Your task to perform on an android device: Add "logitech g933" to the cart on ebay Image 0: 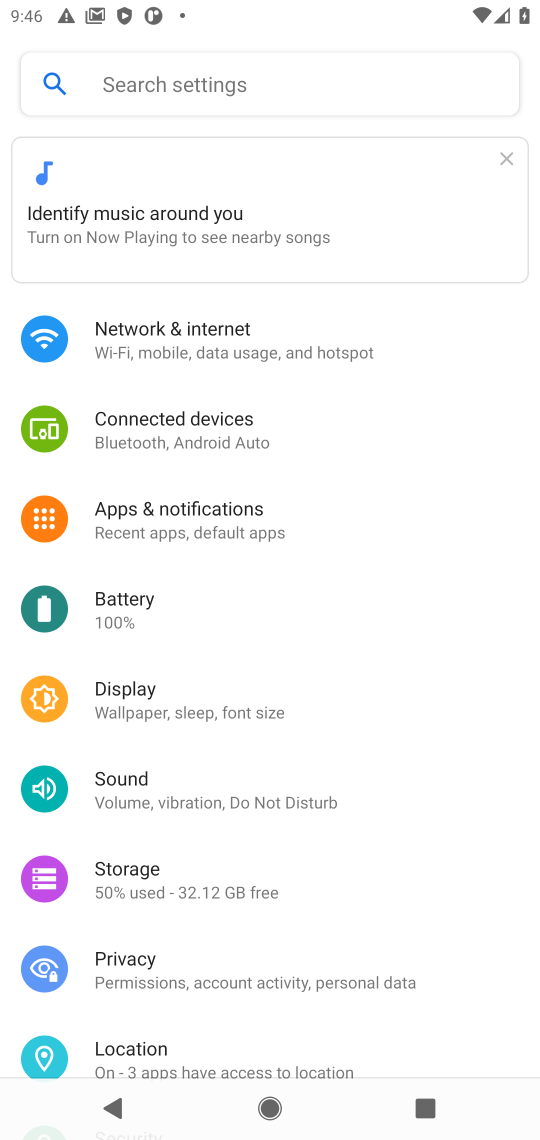
Step 0: press home button
Your task to perform on an android device: Add "logitech g933" to the cart on ebay Image 1: 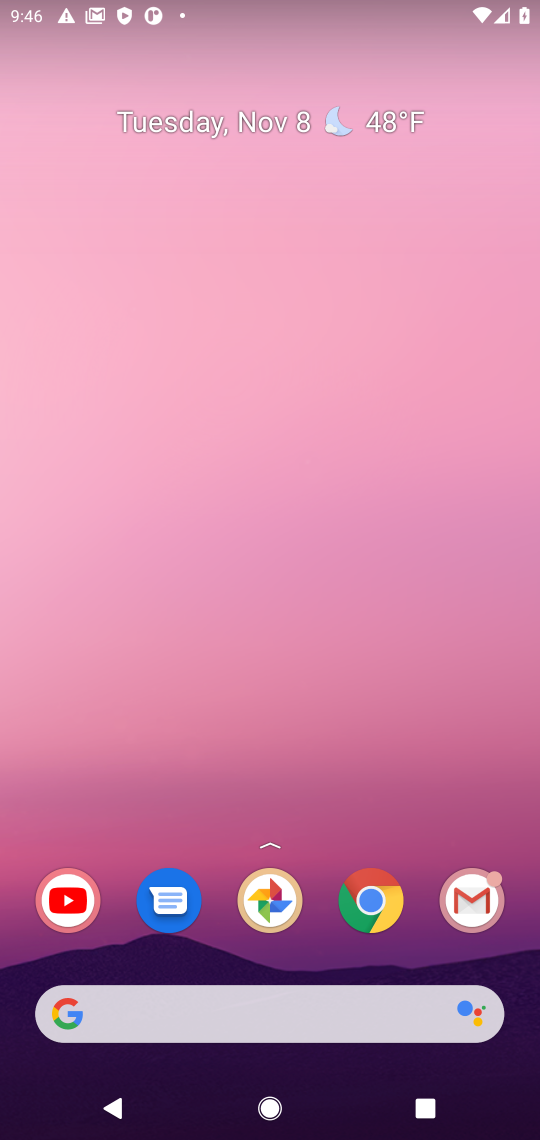
Step 1: click (374, 908)
Your task to perform on an android device: Add "logitech g933" to the cart on ebay Image 2: 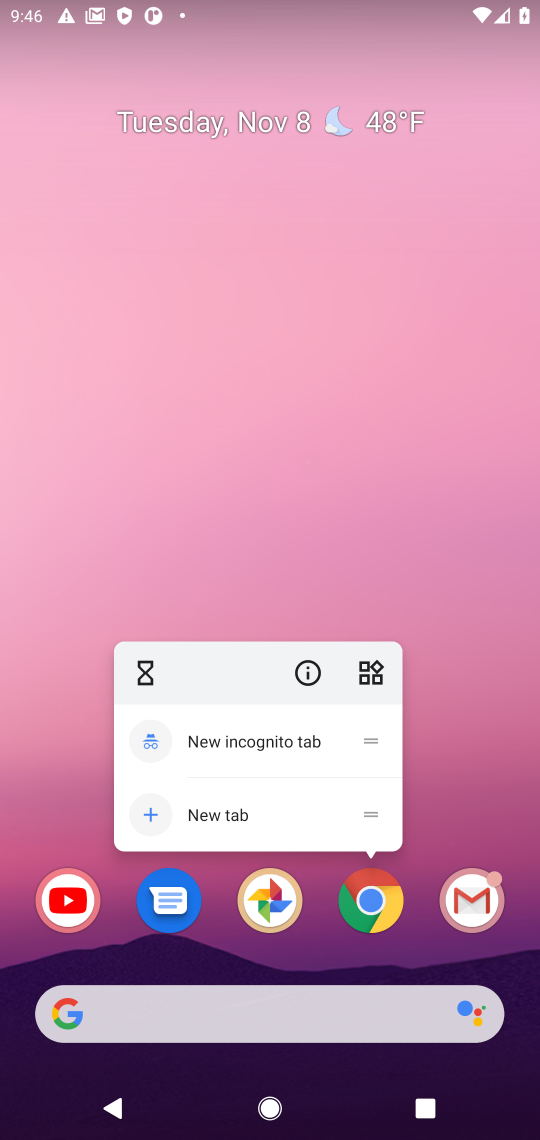
Step 2: click (368, 908)
Your task to perform on an android device: Add "logitech g933" to the cart on ebay Image 3: 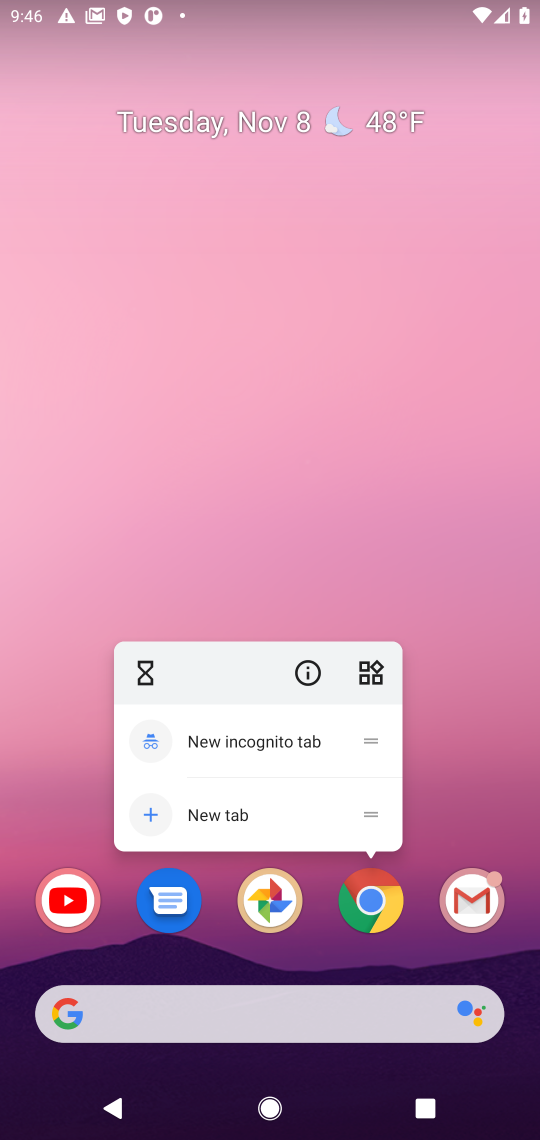
Step 3: click (368, 908)
Your task to perform on an android device: Add "logitech g933" to the cart on ebay Image 4: 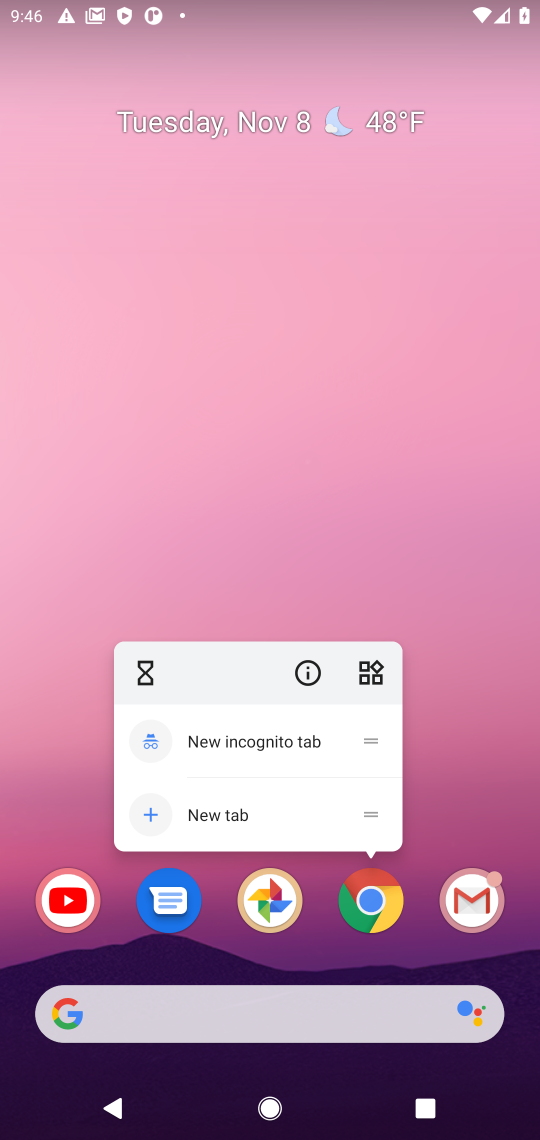
Step 4: click (365, 908)
Your task to perform on an android device: Add "logitech g933" to the cart on ebay Image 5: 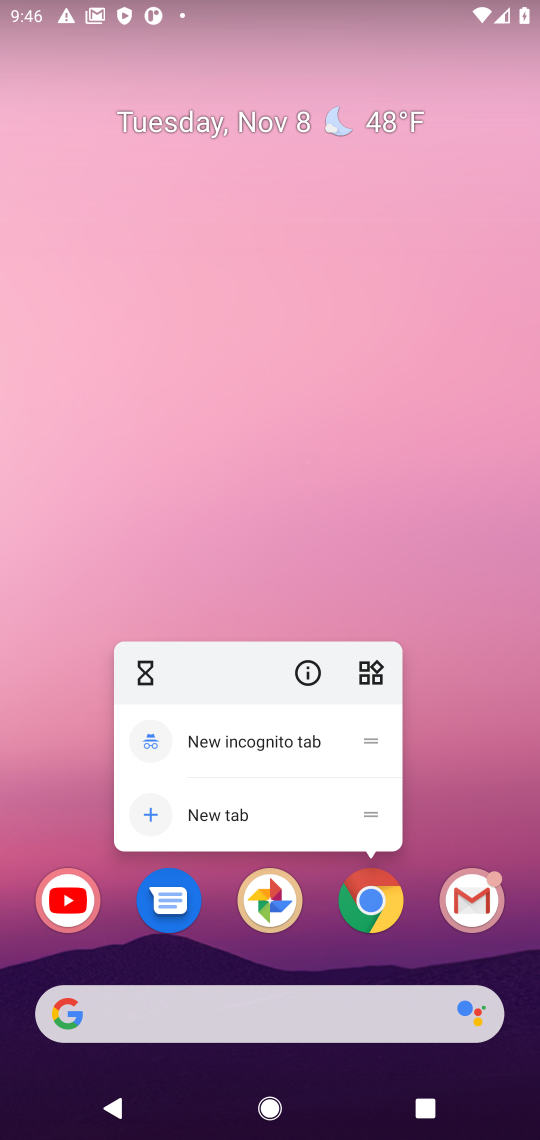
Step 5: press home button
Your task to perform on an android device: Add "logitech g933" to the cart on ebay Image 6: 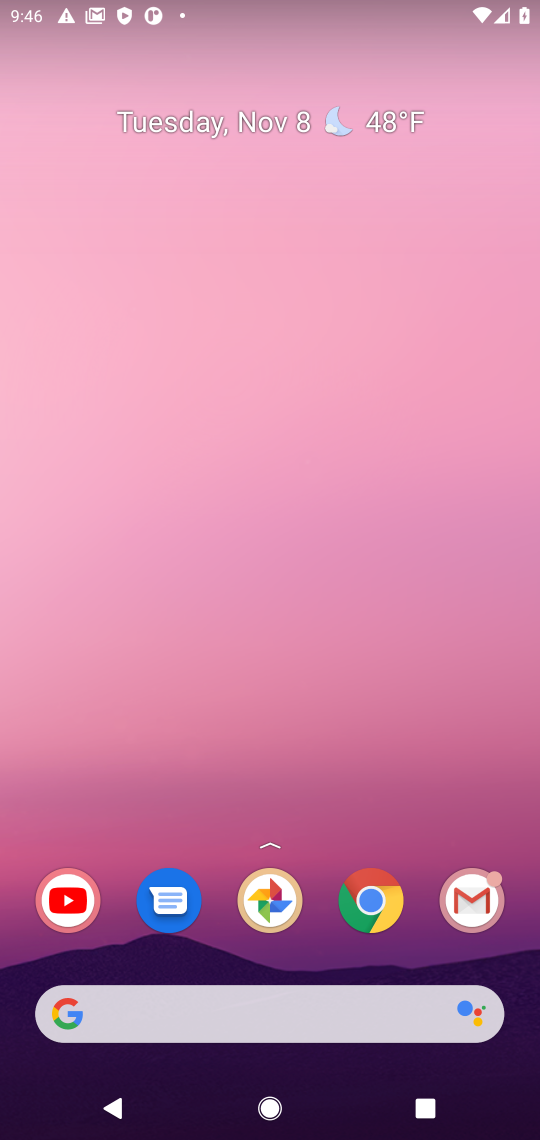
Step 6: click (375, 906)
Your task to perform on an android device: Add "logitech g933" to the cart on ebay Image 7: 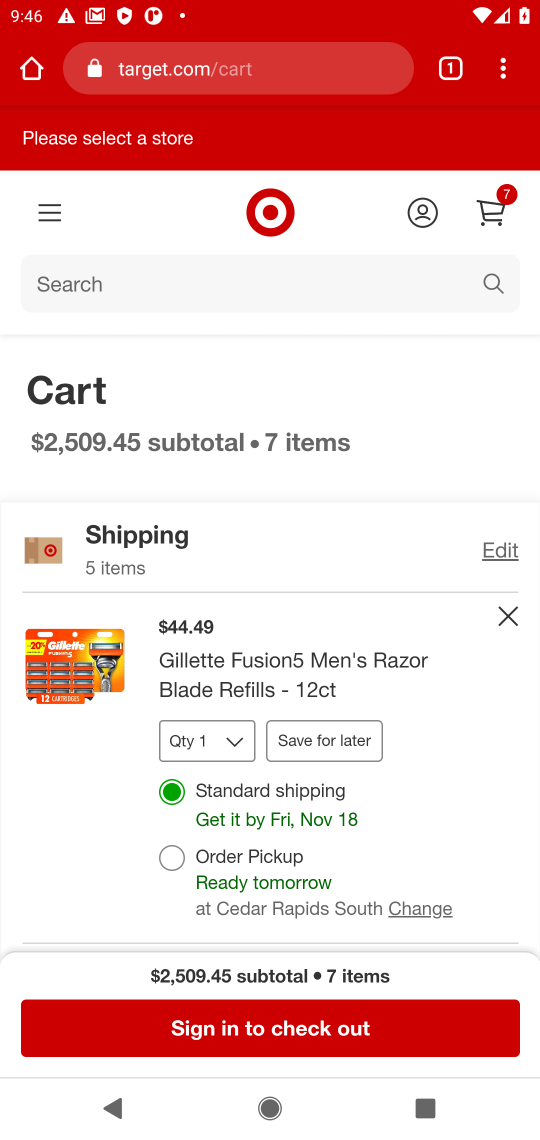
Step 7: click (181, 68)
Your task to perform on an android device: Add "logitech g933" to the cart on ebay Image 8: 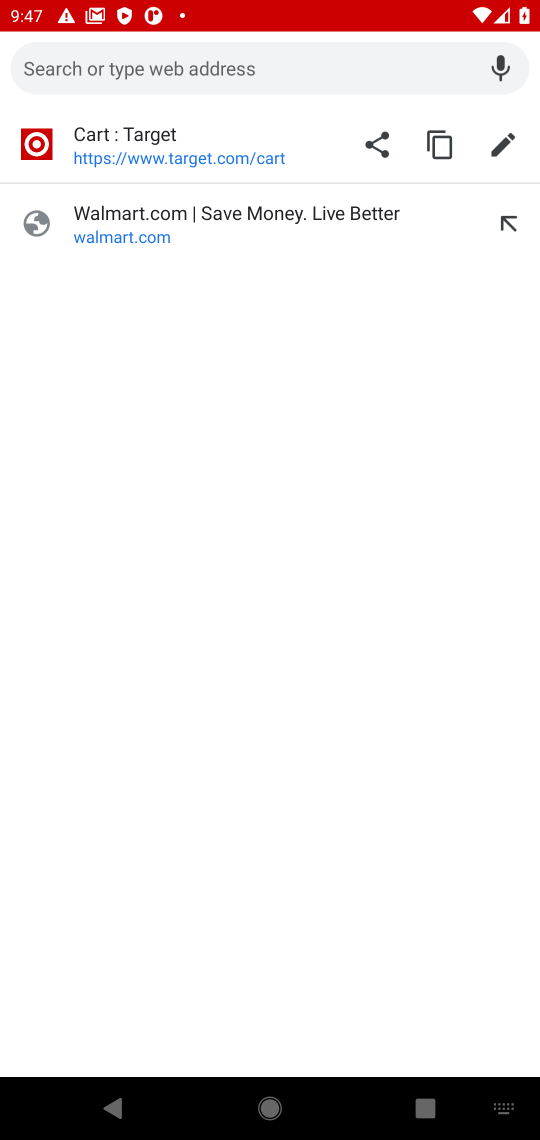
Step 8: type "ebay"
Your task to perform on an android device: Add "logitech g933" to the cart on ebay Image 9: 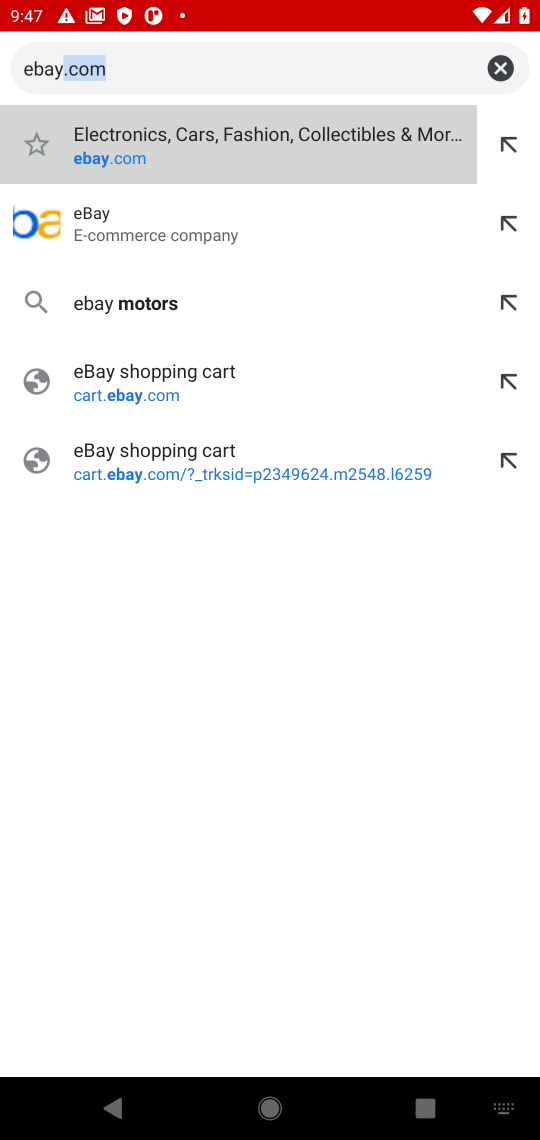
Step 9: type ""
Your task to perform on an android device: Add "logitech g933" to the cart on ebay Image 10: 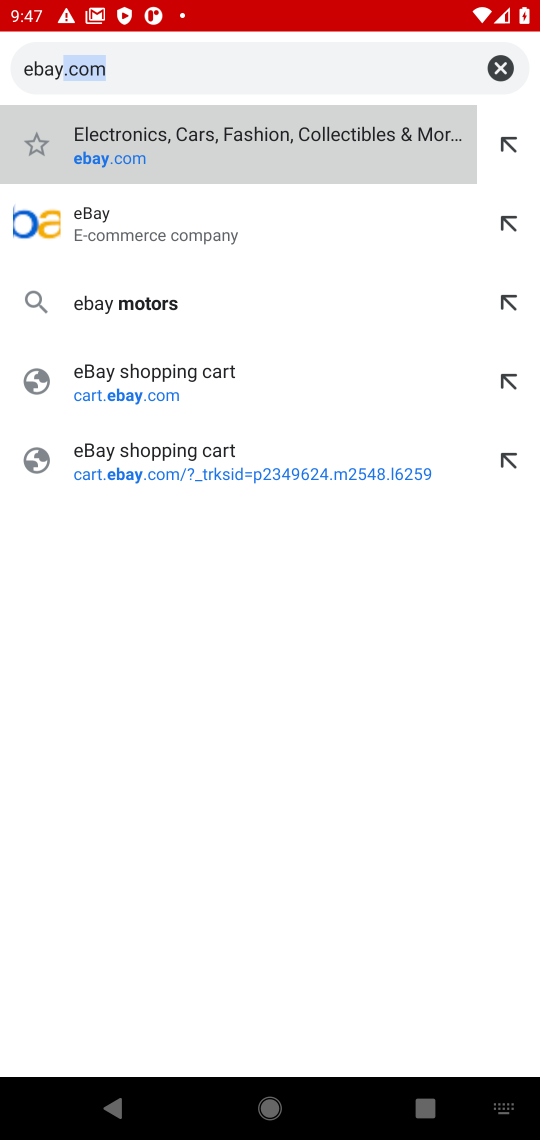
Step 10: click (115, 229)
Your task to perform on an android device: Add "logitech g933" to the cart on ebay Image 11: 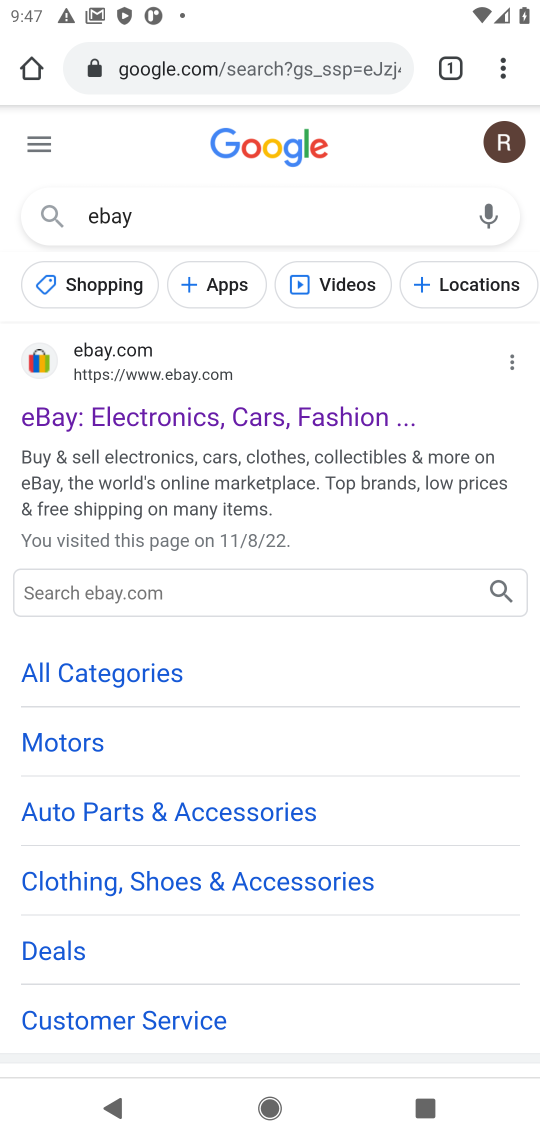
Step 11: click (144, 419)
Your task to perform on an android device: Add "logitech g933" to the cart on ebay Image 12: 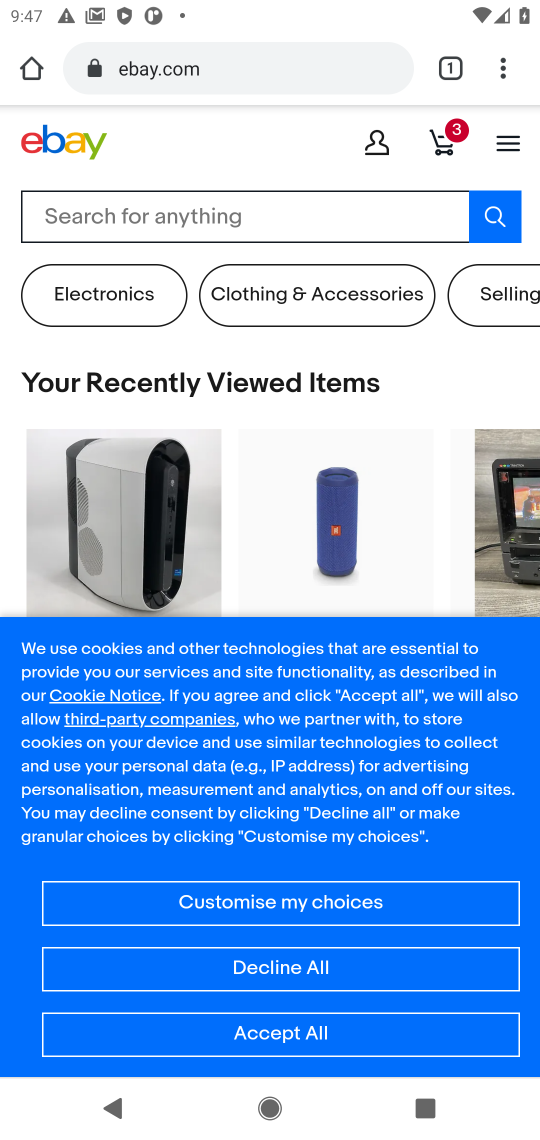
Step 12: click (278, 212)
Your task to perform on an android device: Add "logitech g933" to the cart on ebay Image 13: 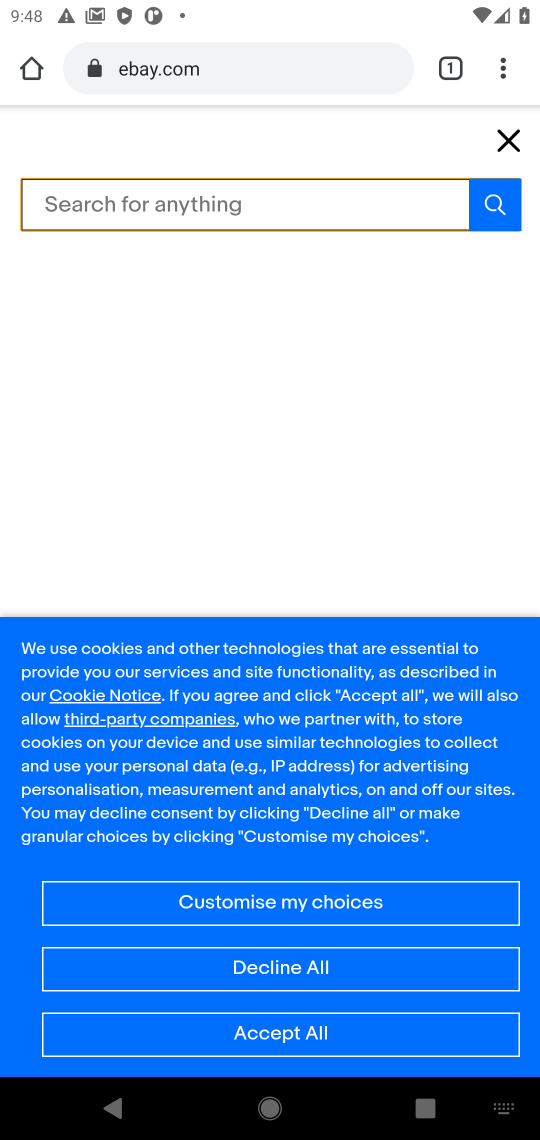
Step 13: type "logitech g933"
Your task to perform on an android device: Add "logitech g933" to the cart on ebay Image 14: 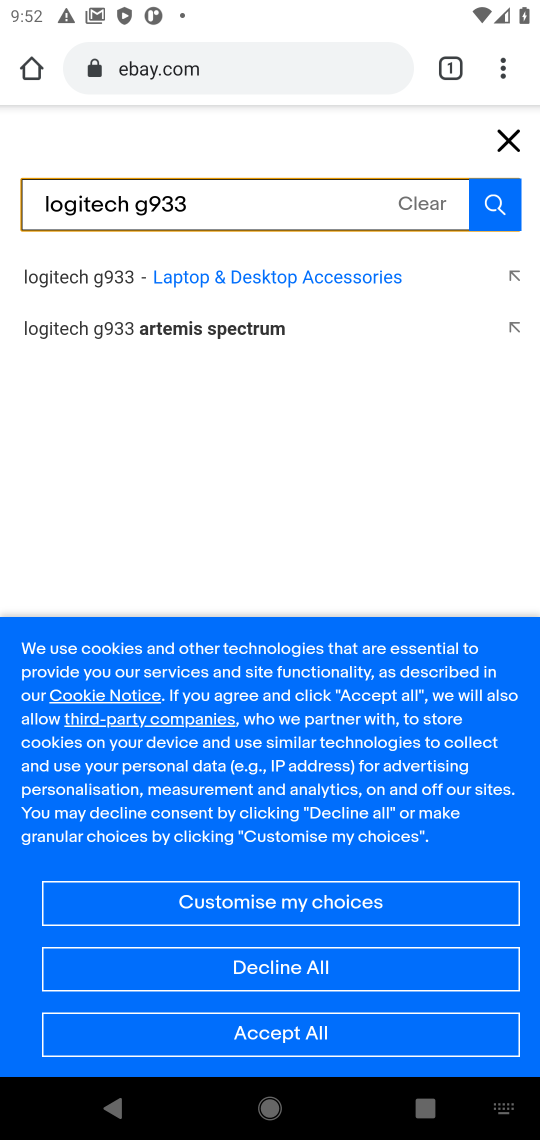
Step 14: click (125, 282)
Your task to perform on an android device: Add "logitech g933" to the cart on ebay Image 15: 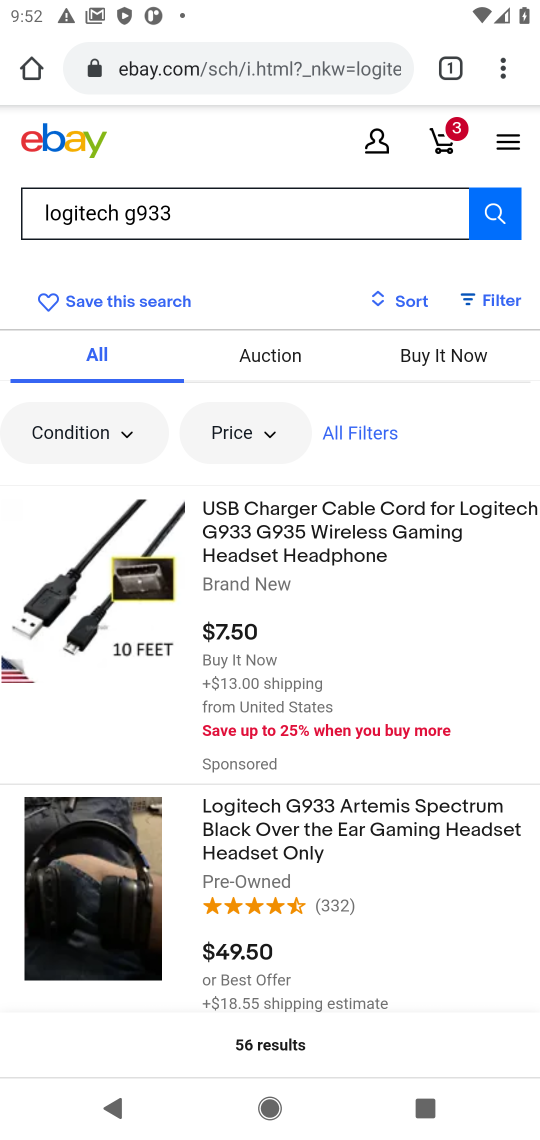
Step 15: click (250, 822)
Your task to perform on an android device: Add "logitech g933" to the cart on ebay Image 16: 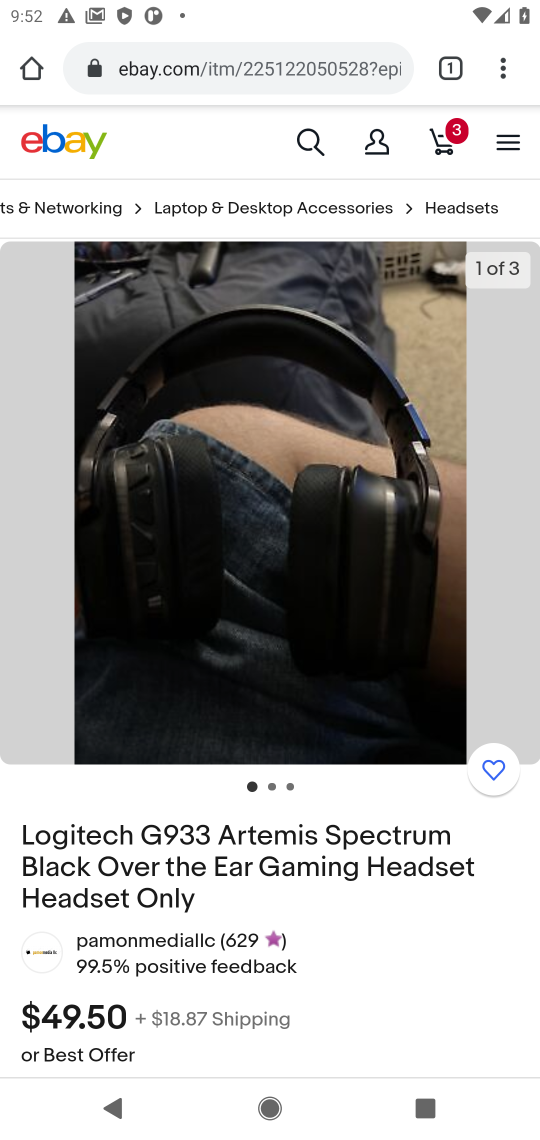
Step 16: drag from (154, 748) to (191, 393)
Your task to perform on an android device: Add "logitech g933" to the cart on ebay Image 17: 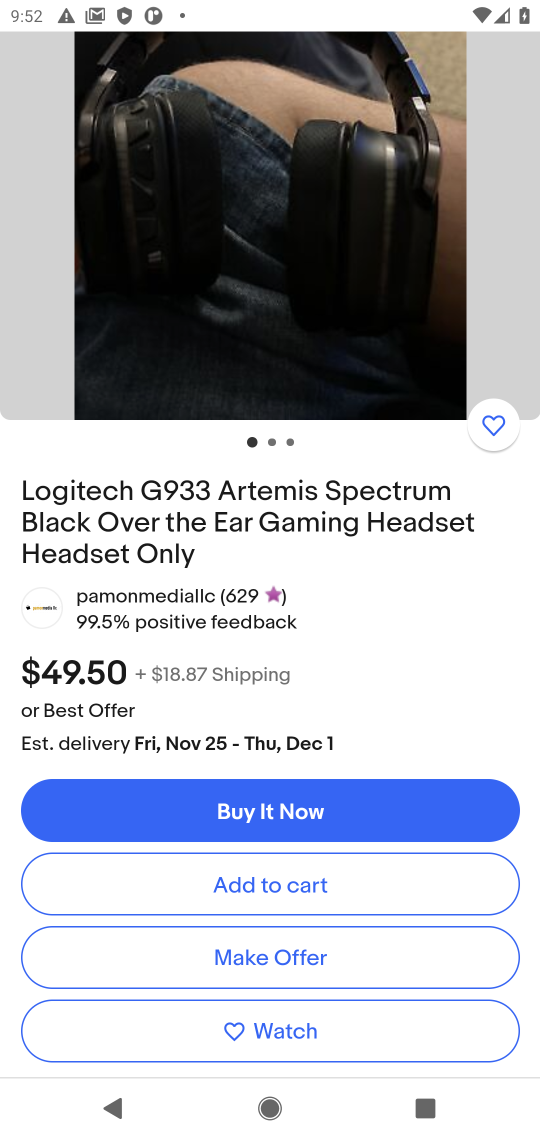
Step 17: click (262, 890)
Your task to perform on an android device: Add "logitech g933" to the cart on ebay Image 18: 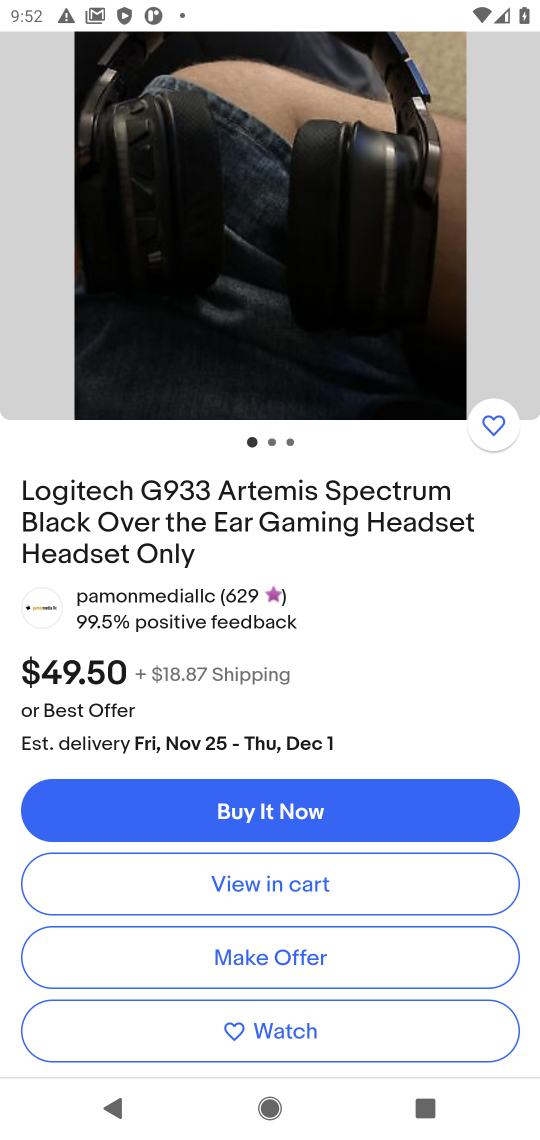
Step 18: click (262, 890)
Your task to perform on an android device: Add "logitech g933" to the cart on ebay Image 19: 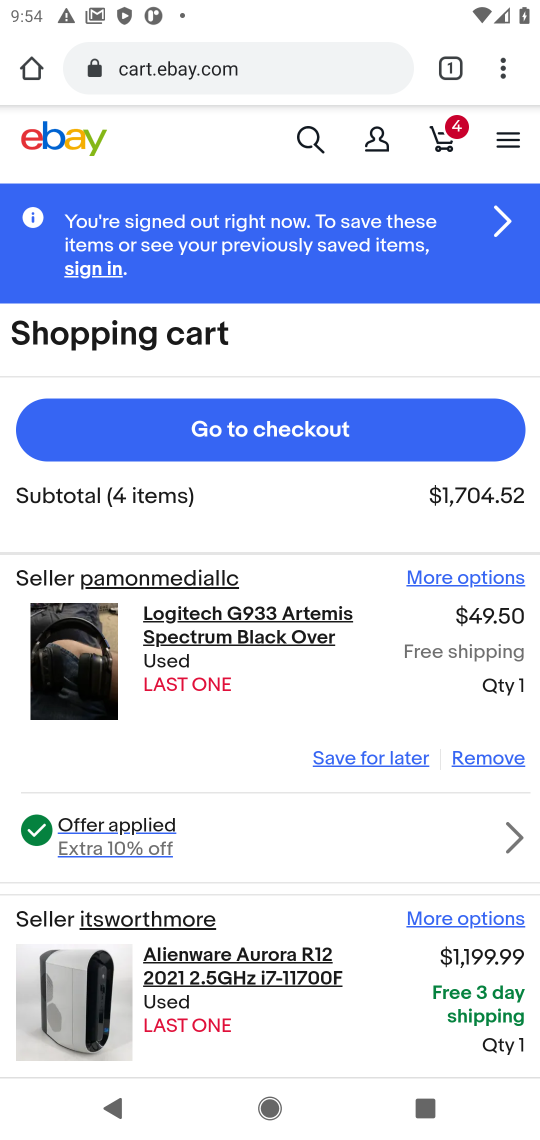
Step 19: task complete